Your task to perform on an android device: Open wifi settings Image 0: 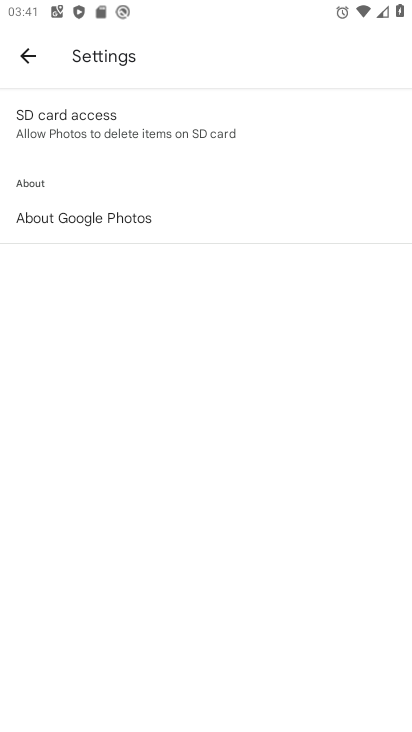
Step 0: press home button
Your task to perform on an android device: Open wifi settings Image 1: 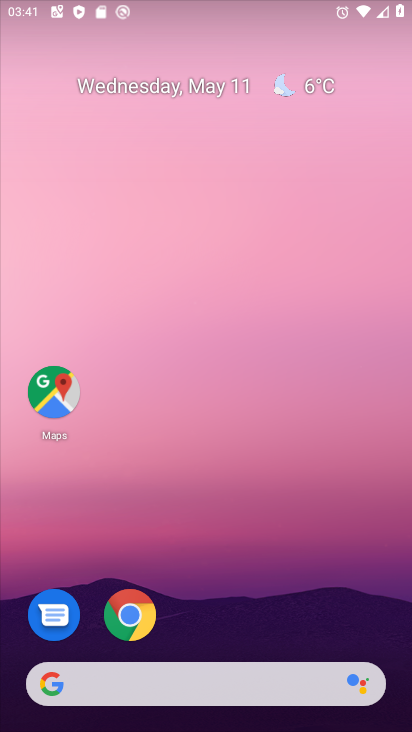
Step 1: drag from (240, 561) to (271, 0)
Your task to perform on an android device: Open wifi settings Image 2: 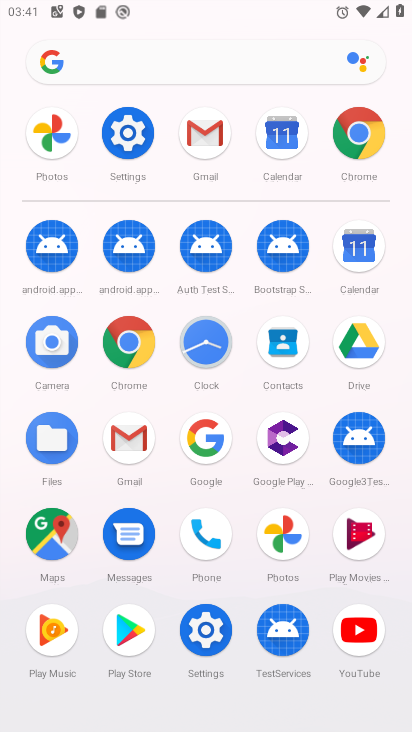
Step 2: click (133, 190)
Your task to perform on an android device: Open wifi settings Image 3: 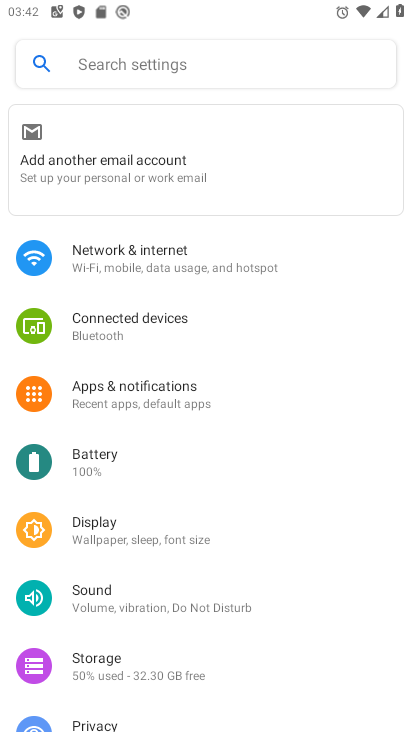
Step 3: click (110, 263)
Your task to perform on an android device: Open wifi settings Image 4: 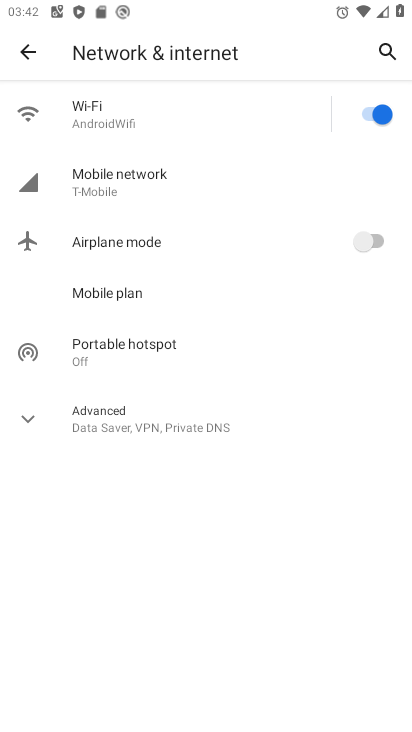
Step 4: click (192, 115)
Your task to perform on an android device: Open wifi settings Image 5: 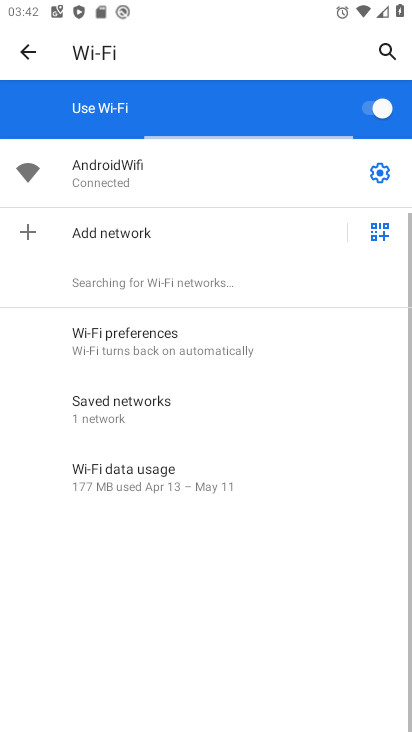
Step 5: click (383, 165)
Your task to perform on an android device: Open wifi settings Image 6: 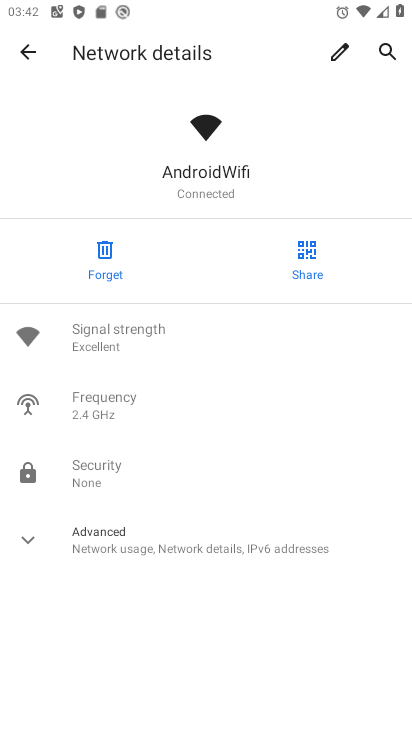
Step 6: task complete